Your task to perform on an android device: change alarm snooze length Image 0: 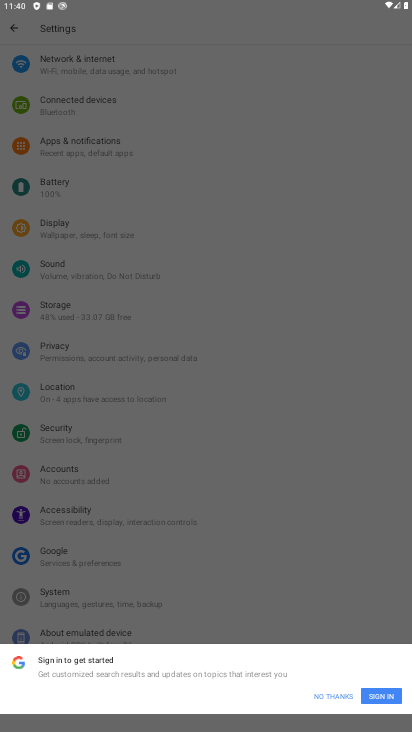
Step 0: drag from (192, 594) to (264, 268)
Your task to perform on an android device: change alarm snooze length Image 1: 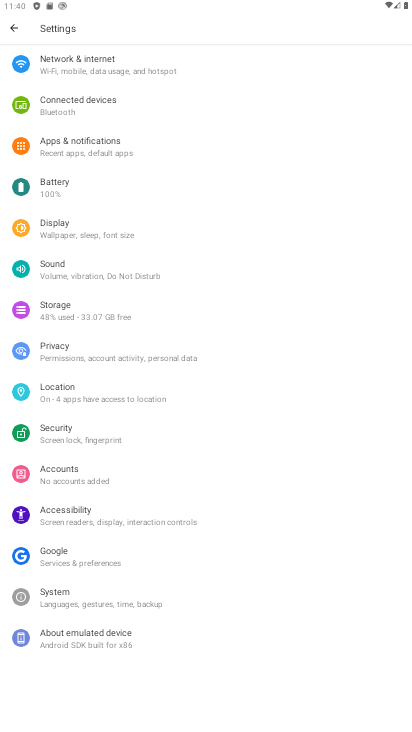
Step 1: press home button
Your task to perform on an android device: change alarm snooze length Image 2: 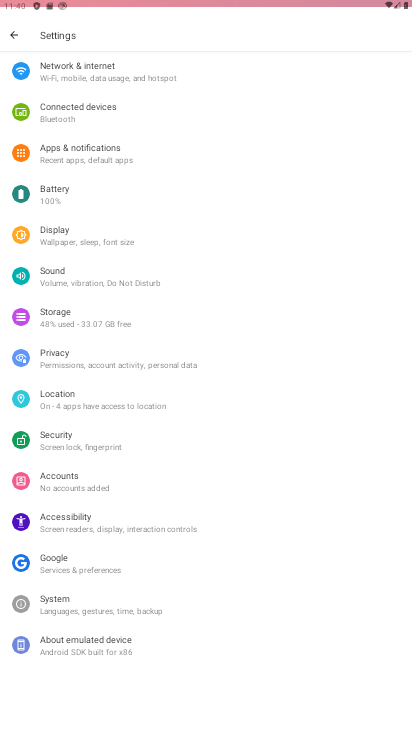
Step 2: drag from (180, 497) to (225, 95)
Your task to perform on an android device: change alarm snooze length Image 3: 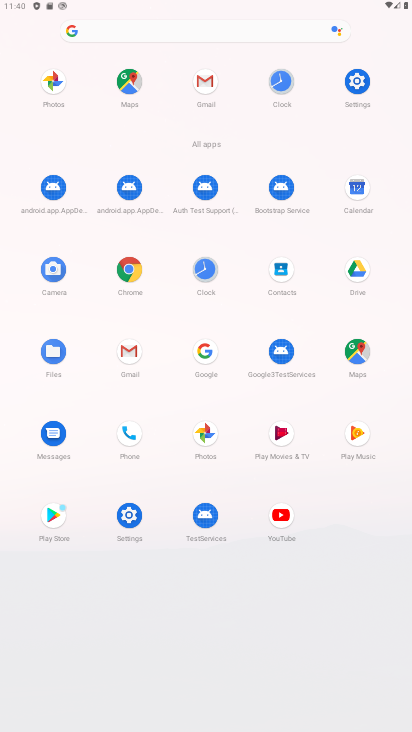
Step 3: click (207, 265)
Your task to perform on an android device: change alarm snooze length Image 4: 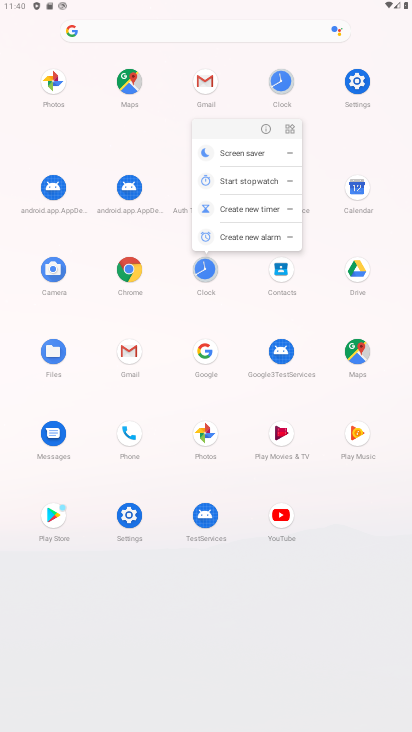
Step 4: click (264, 127)
Your task to perform on an android device: change alarm snooze length Image 5: 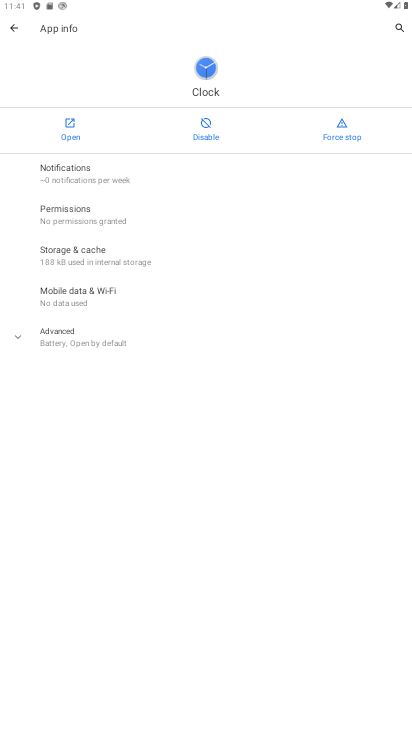
Step 5: click (65, 119)
Your task to perform on an android device: change alarm snooze length Image 6: 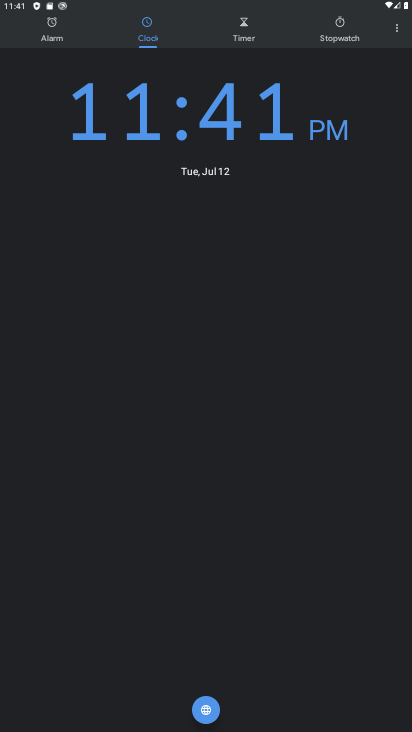
Step 6: drag from (173, 508) to (321, 209)
Your task to perform on an android device: change alarm snooze length Image 7: 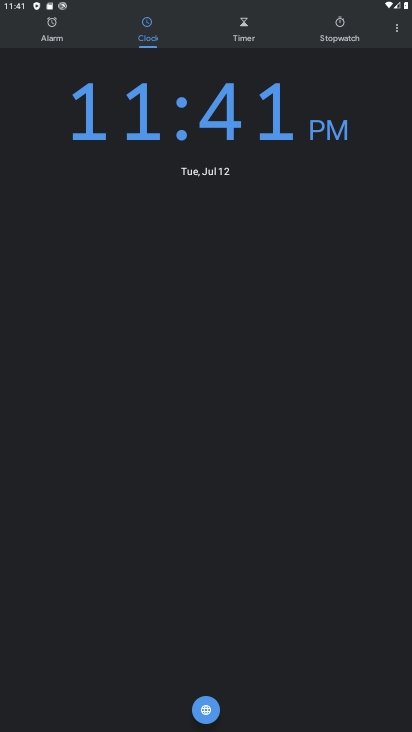
Step 7: click (396, 35)
Your task to perform on an android device: change alarm snooze length Image 8: 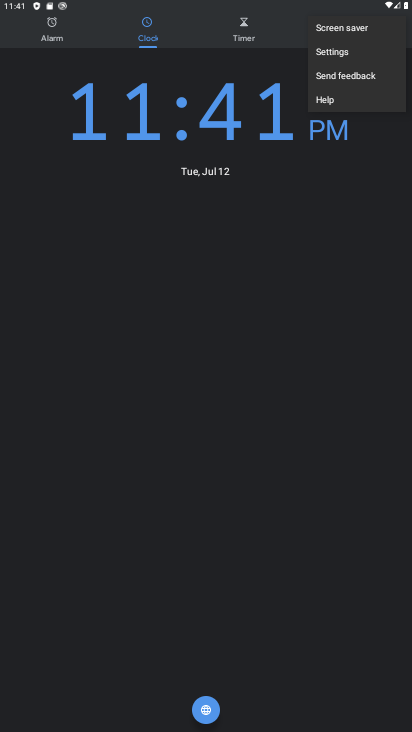
Step 8: click (329, 57)
Your task to perform on an android device: change alarm snooze length Image 9: 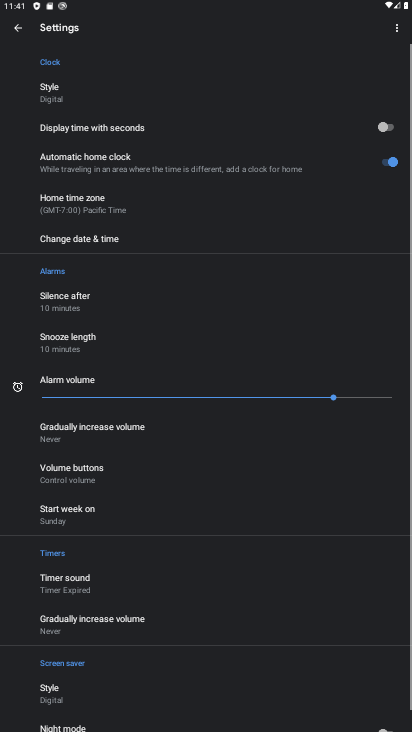
Step 9: drag from (213, 441) to (248, 146)
Your task to perform on an android device: change alarm snooze length Image 10: 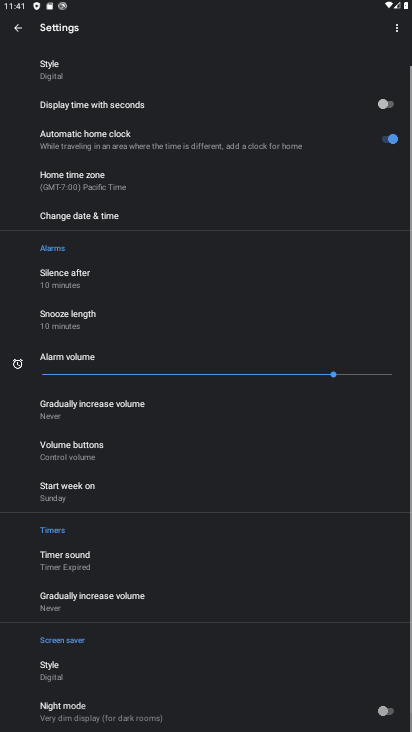
Step 10: drag from (249, 112) to (219, 664)
Your task to perform on an android device: change alarm snooze length Image 11: 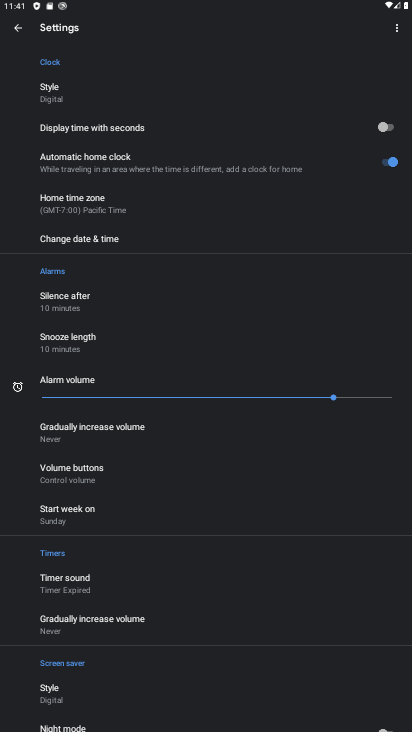
Step 11: click (110, 339)
Your task to perform on an android device: change alarm snooze length Image 12: 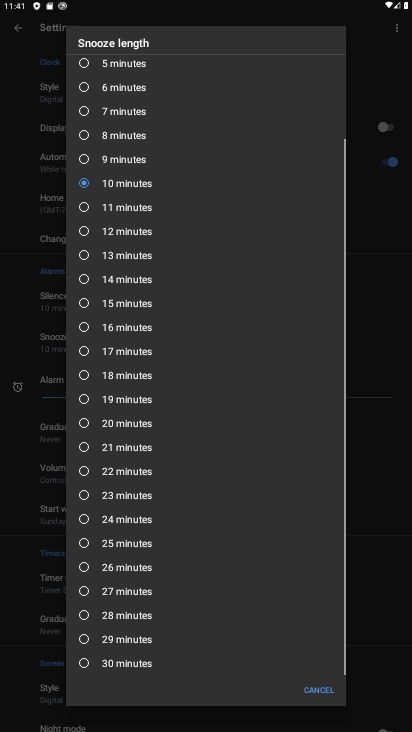
Step 12: click (123, 255)
Your task to perform on an android device: change alarm snooze length Image 13: 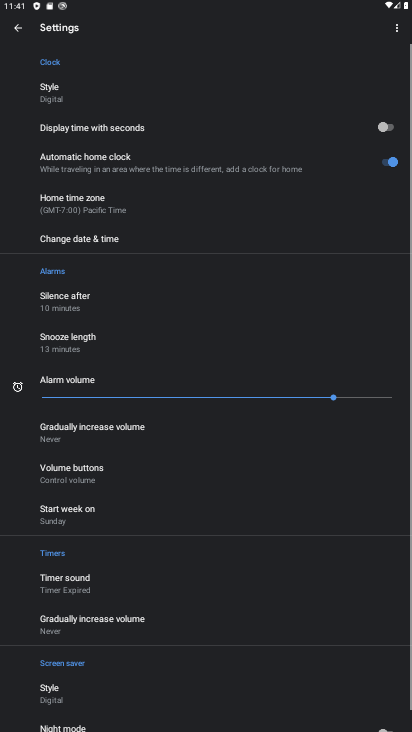
Step 13: task complete